Your task to perform on an android device: empty trash in the gmail app Image 0: 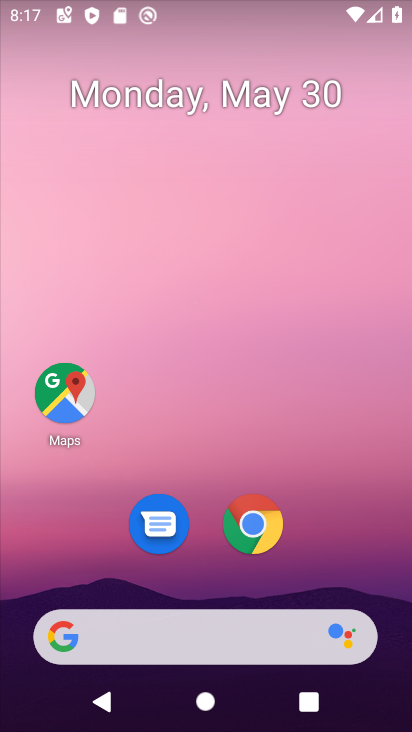
Step 0: drag from (207, 448) to (209, 3)
Your task to perform on an android device: empty trash in the gmail app Image 1: 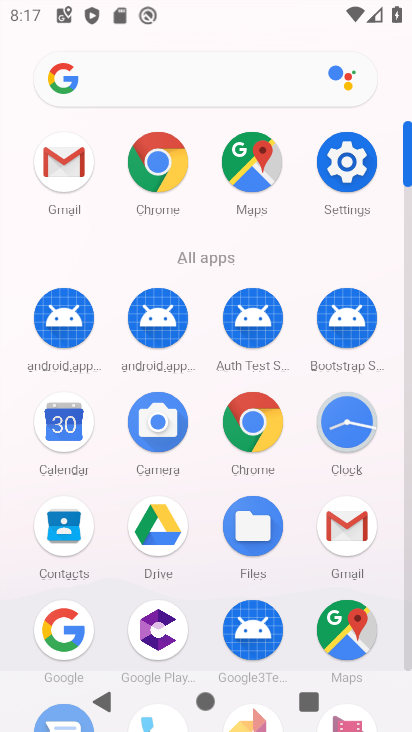
Step 1: click (70, 164)
Your task to perform on an android device: empty trash in the gmail app Image 2: 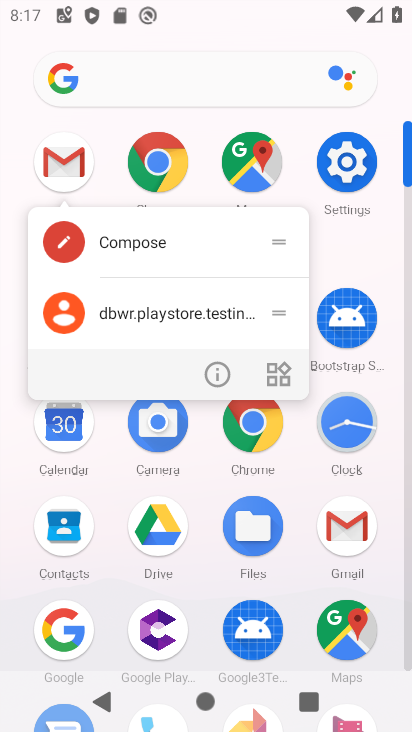
Step 2: click (70, 164)
Your task to perform on an android device: empty trash in the gmail app Image 3: 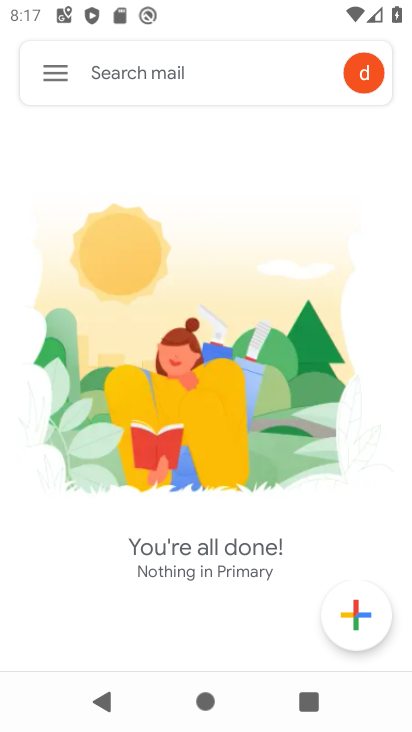
Step 3: click (47, 62)
Your task to perform on an android device: empty trash in the gmail app Image 4: 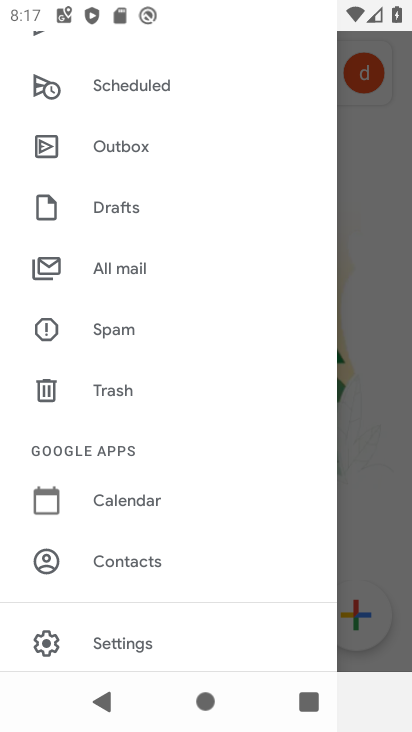
Step 4: click (104, 390)
Your task to perform on an android device: empty trash in the gmail app Image 5: 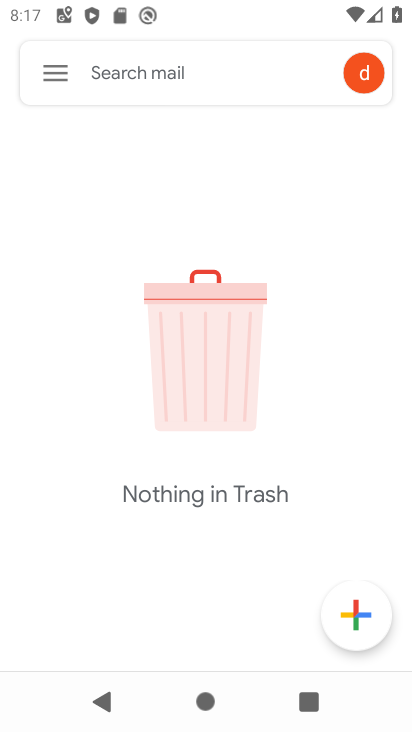
Step 5: task complete